Your task to perform on an android device: Open settings on Google Maps Image 0: 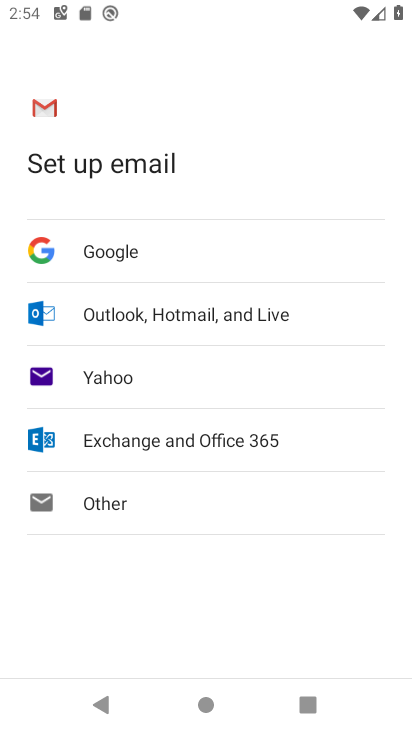
Step 0: press back button
Your task to perform on an android device: Open settings on Google Maps Image 1: 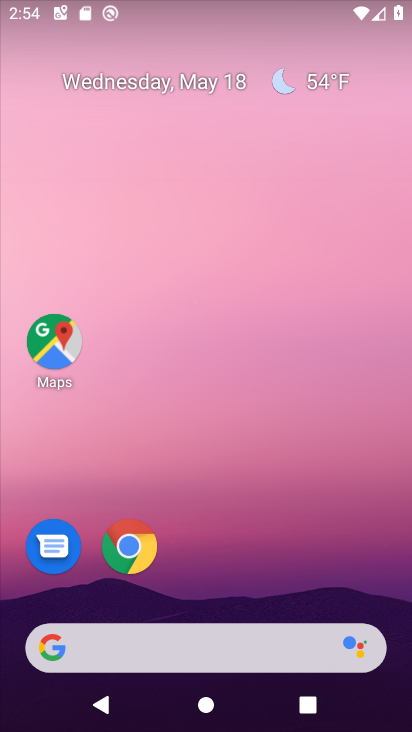
Step 1: drag from (367, 635) to (191, 151)
Your task to perform on an android device: Open settings on Google Maps Image 2: 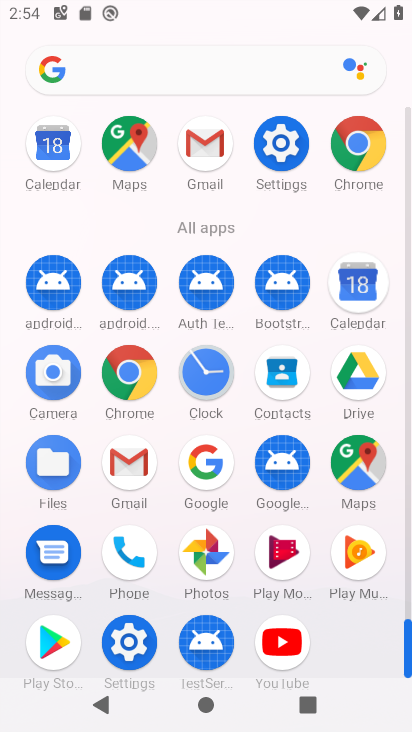
Step 2: click (343, 447)
Your task to perform on an android device: Open settings on Google Maps Image 3: 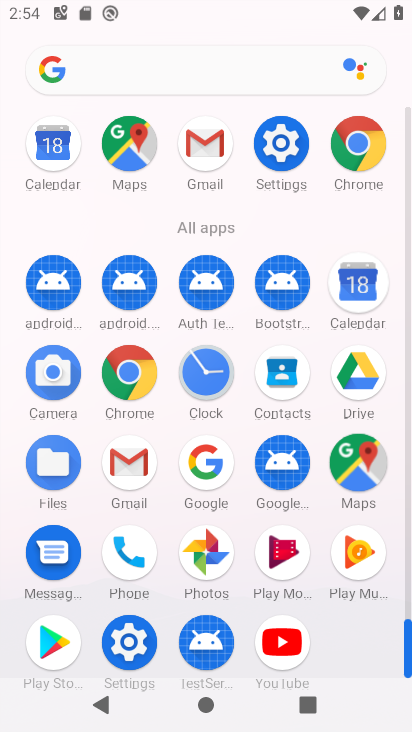
Step 3: click (366, 445)
Your task to perform on an android device: Open settings on Google Maps Image 4: 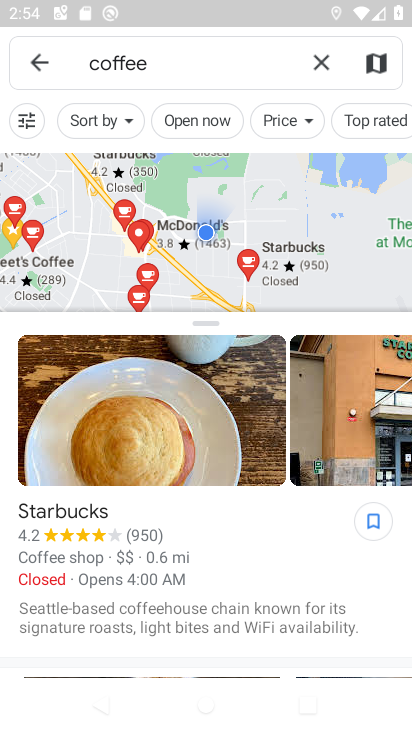
Step 4: click (42, 67)
Your task to perform on an android device: Open settings on Google Maps Image 5: 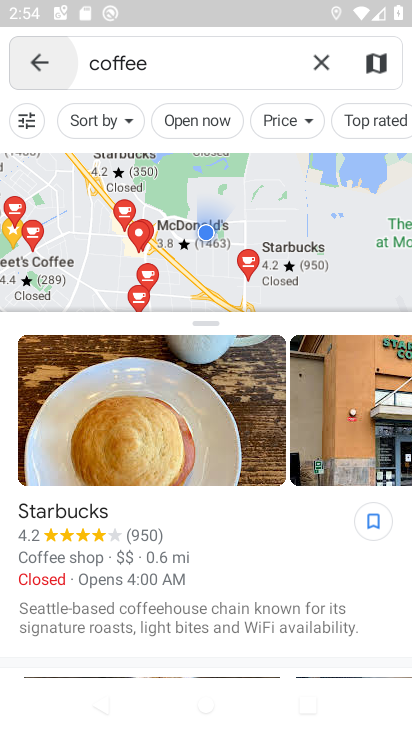
Step 5: click (55, 58)
Your task to perform on an android device: Open settings on Google Maps Image 6: 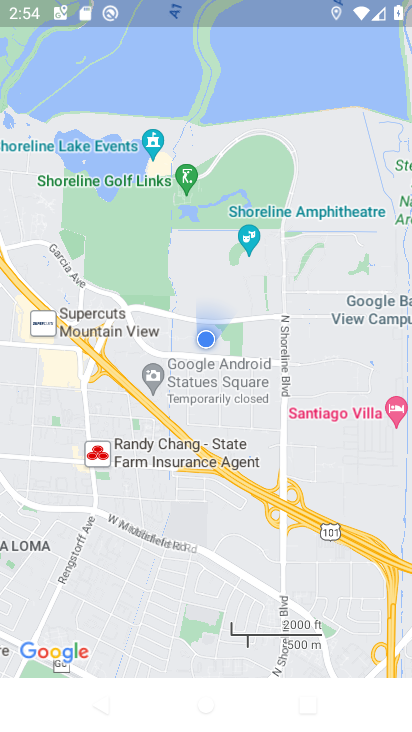
Step 6: click (85, 156)
Your task to perform on an android device: Open settings on Google Maps Image 7: 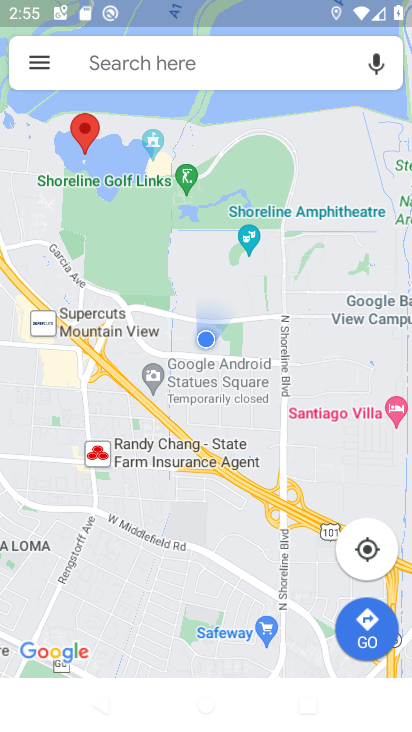
Step 7: drag from (221, 227) to (253, 281)
Your task to perform on an android device: Open settings on Google Maps Image 8: 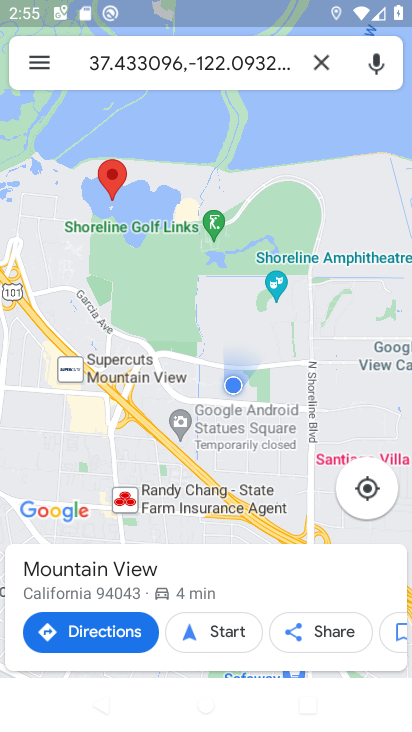
Step 8: click (39, 69)
Your task to perform on an android device: Open settings on Google Maps Image 9: 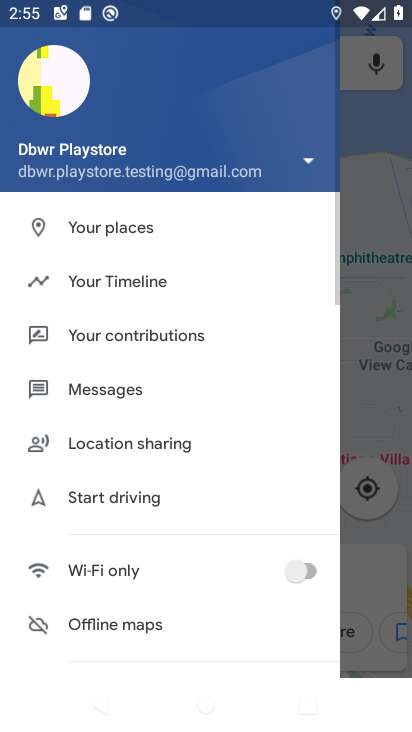
Step 9: click (133, 287)
Your task to perform on an android device: Open settings on Google Maps Image 10: 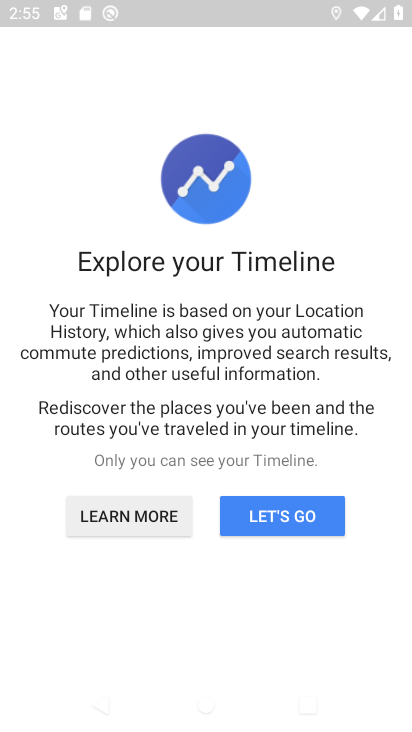
Step 10: click (285, 518)
Your task to perform on an android device: Open settings on Google Maps Image 11: 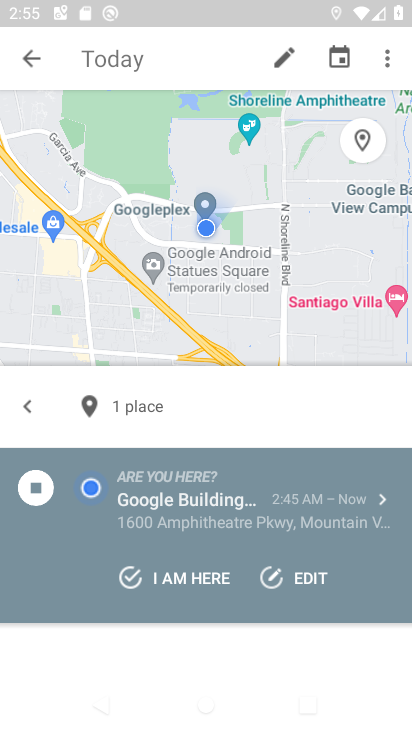
Step 11: click (386, 62)
Your task to perform on an android device: Open settings on Google Maps Image 12: 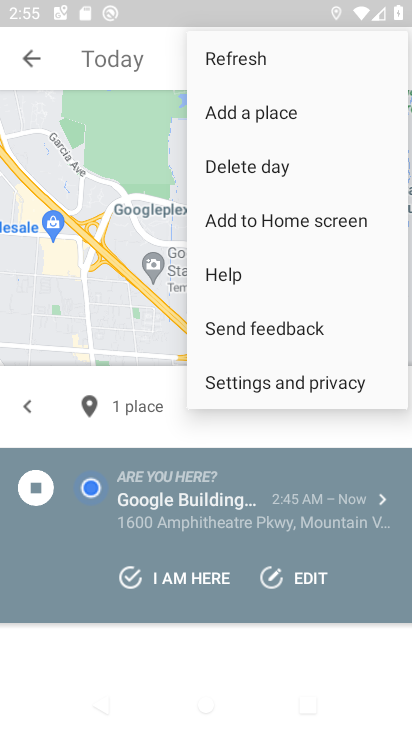
Step 12: click (281, 385)
Your task to perform on an android device: Open settings on Google Maps Image 13: 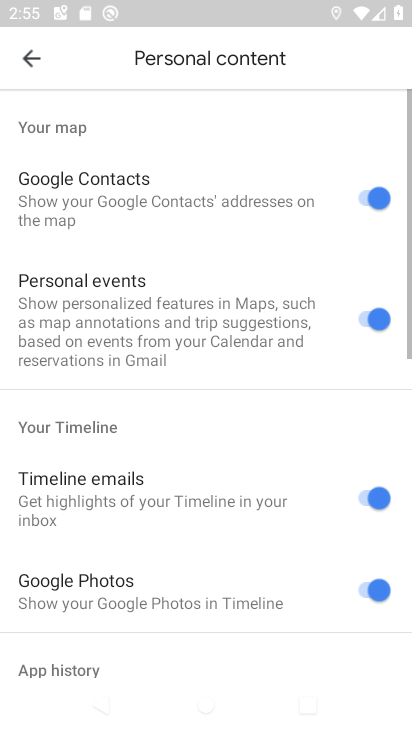
Step 13: task complete